Your task to perform on an android device: What's on my calendar tomorrow? Image 0: 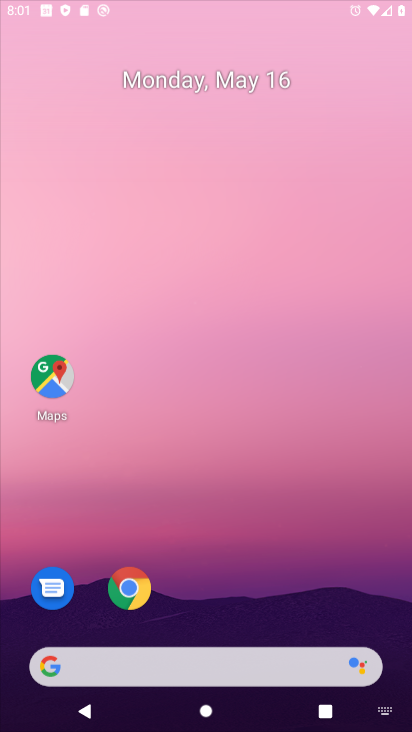
Step 0: click (0, 188)
Your task to perform on an android device: What's on my calendar tomorrow? Image 1: 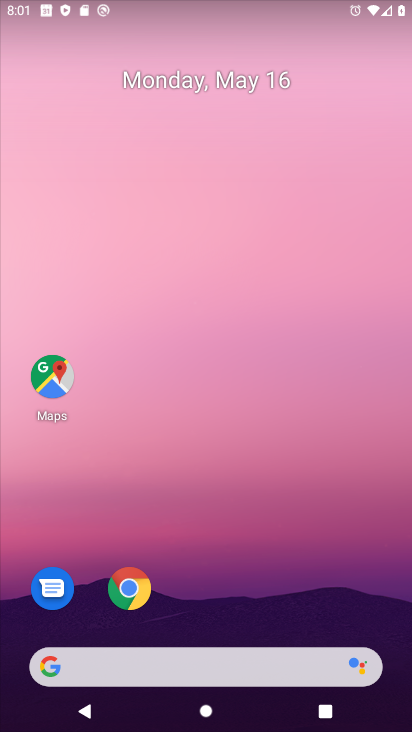
Step 1: drag from (244, 562) to (170, 121)
Your task to perform on an android device: What's on my calendar tomorrow? Image 2: 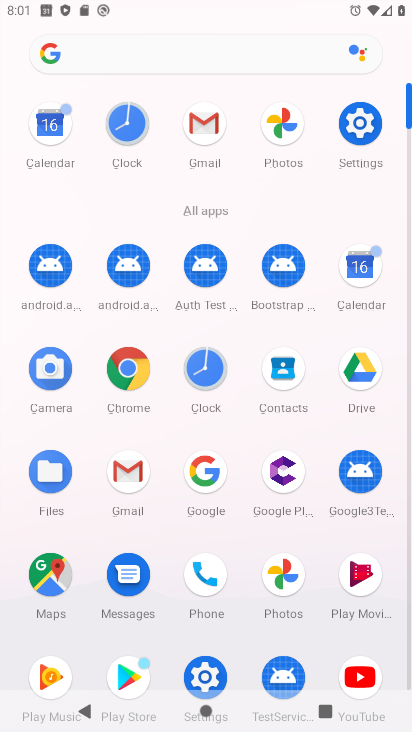
Step 2: click (364, 263)
Your task to perform on an android device: What's on my calendar tomorrow? Image 3: 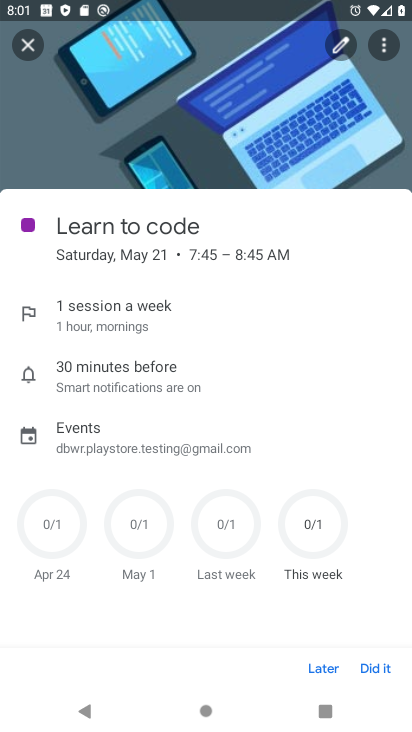
Step 3: press back button
Your task to perform on an android device: What's on my calendar tomorrow? Image 4: 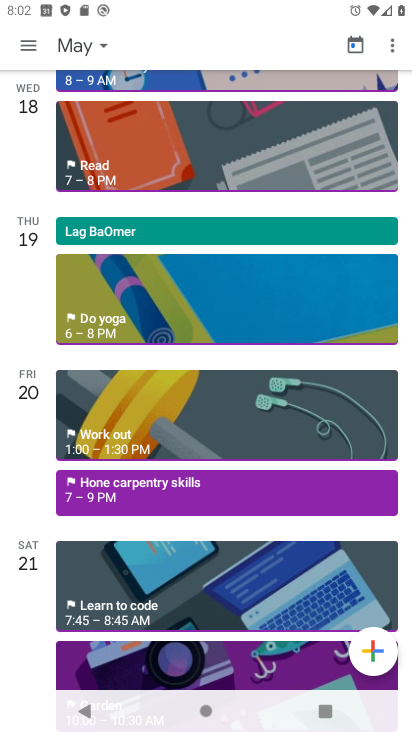
Step 4: click (113, 159)
Your task to perform on an android device: What's on my calendar tomorrow? Image 5: 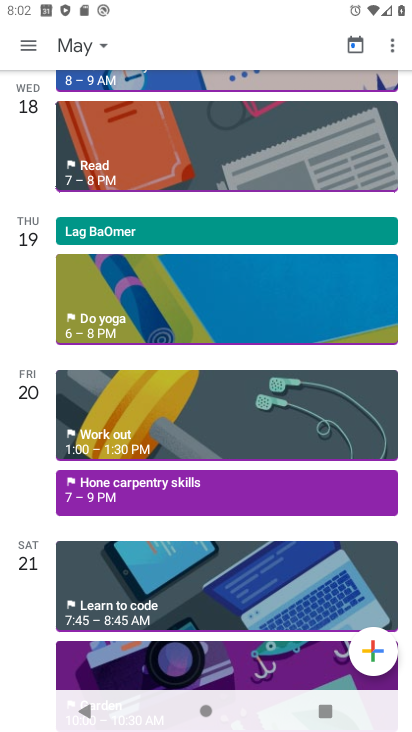
Step 5: click (113, 159)
Your task to perform on an android device: What's on my calendar tomorrow? Image 6: 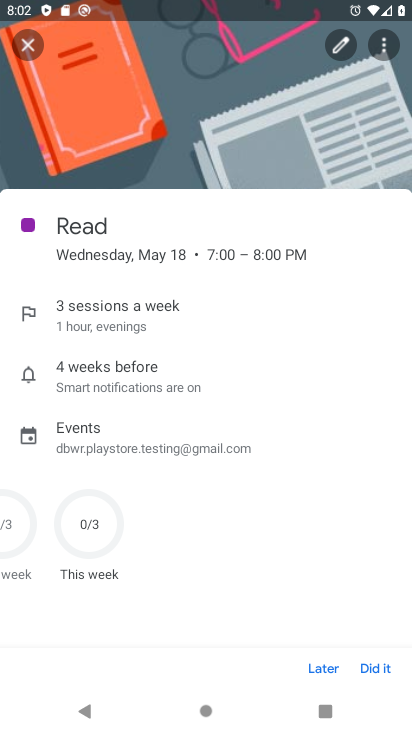
Step 6: task complete